Your task to perform on an android device: Search for good Indian restaurants Image 0: 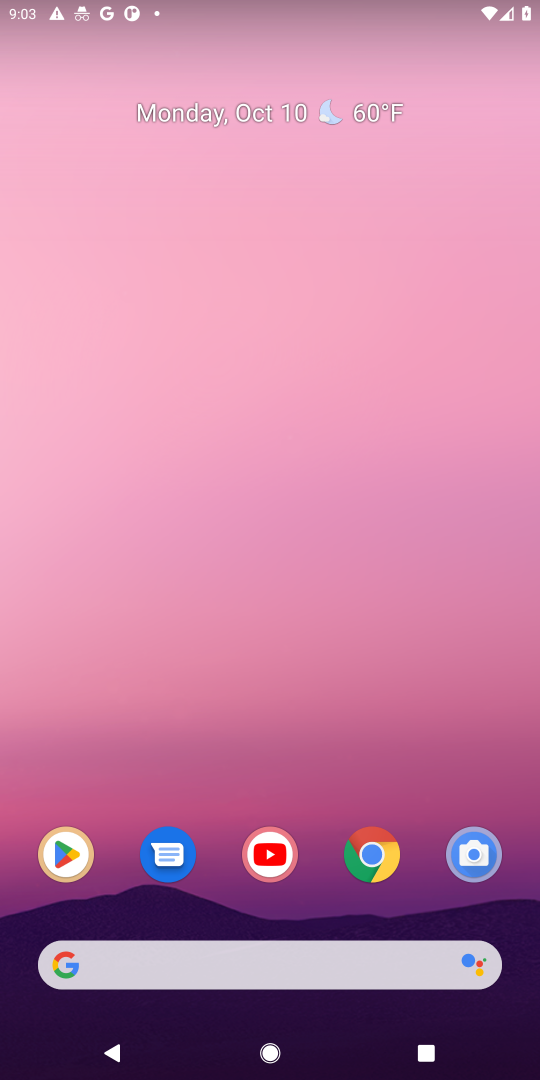
Step 0: click (367, 850)
Your task to perform on an android device: Search for good Indian restaurants Image 1: 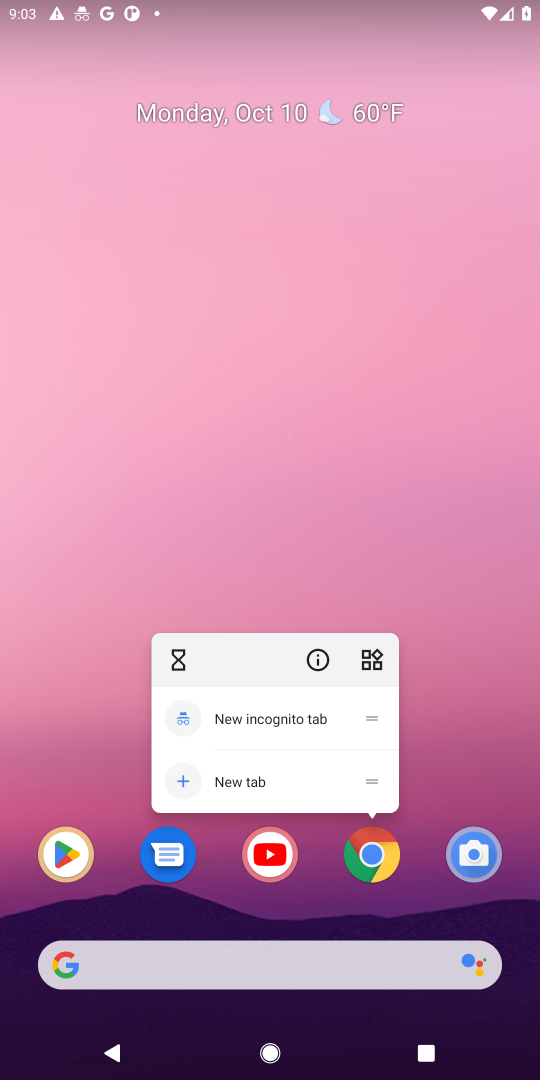
Step 1: click (378, 868)
Your task to perform on an android device: Search for good Indian restaurants Image 2: 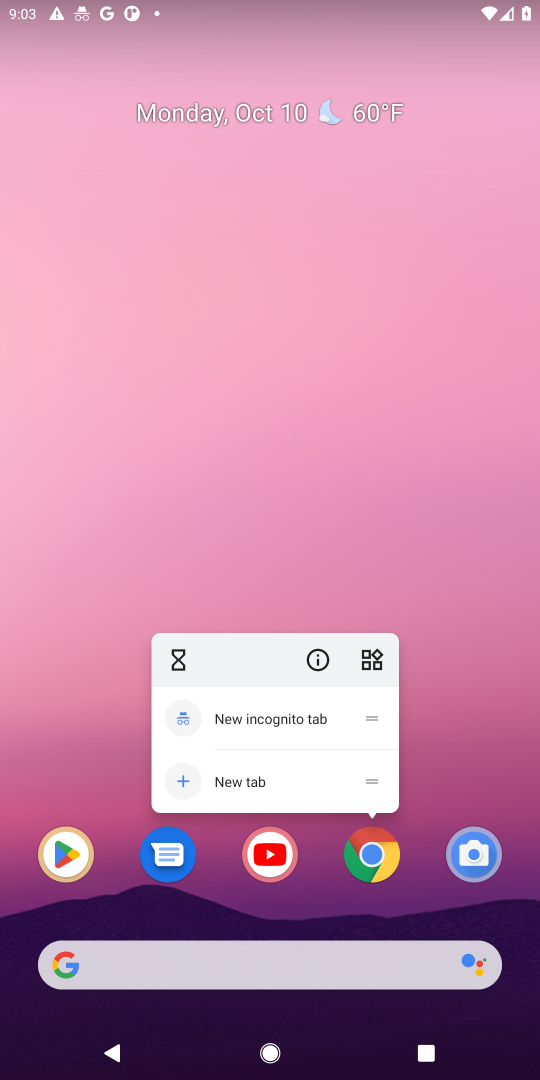
Step 2: click (366, 855)
Your task to perform on an android device: Search for good Indian restaurants Image 3: 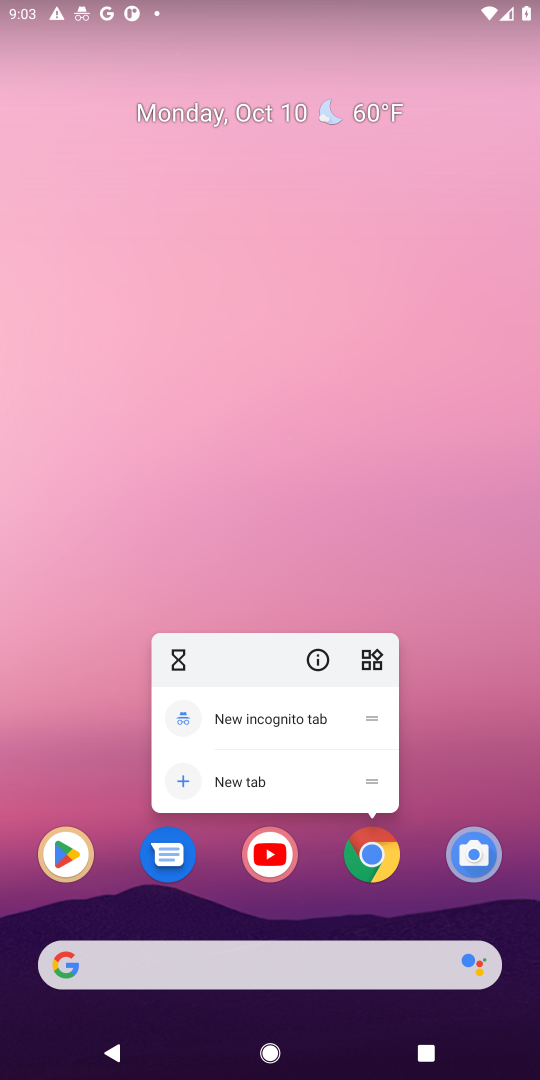
Step 3: click (377, 854)
Your task to perform on an android device: Search for good Indian restaurants Image 4: 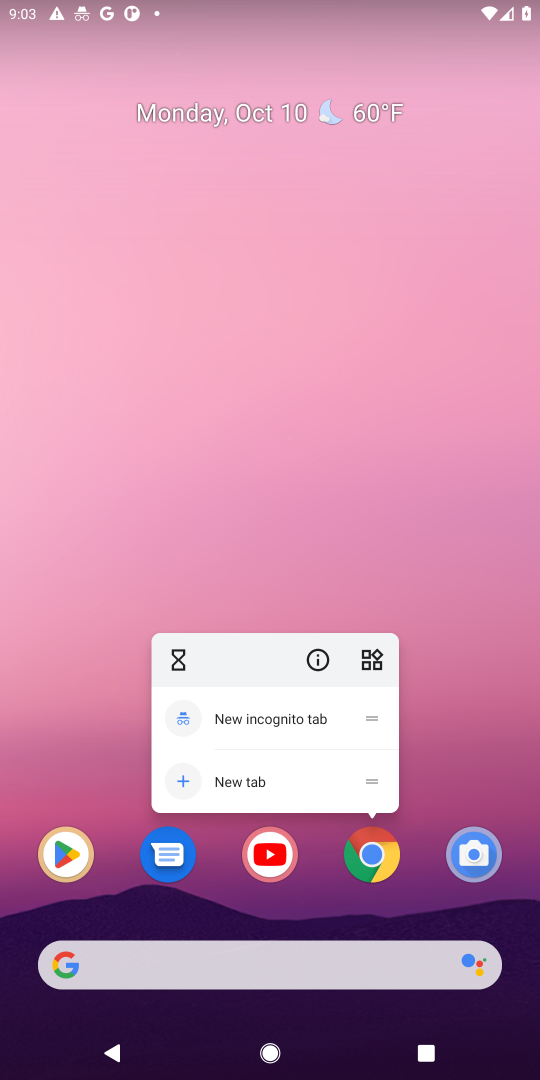
Step 4: click (377, 854)
Your task to perform on an android device: Search for good Indian restaurants Image 5: 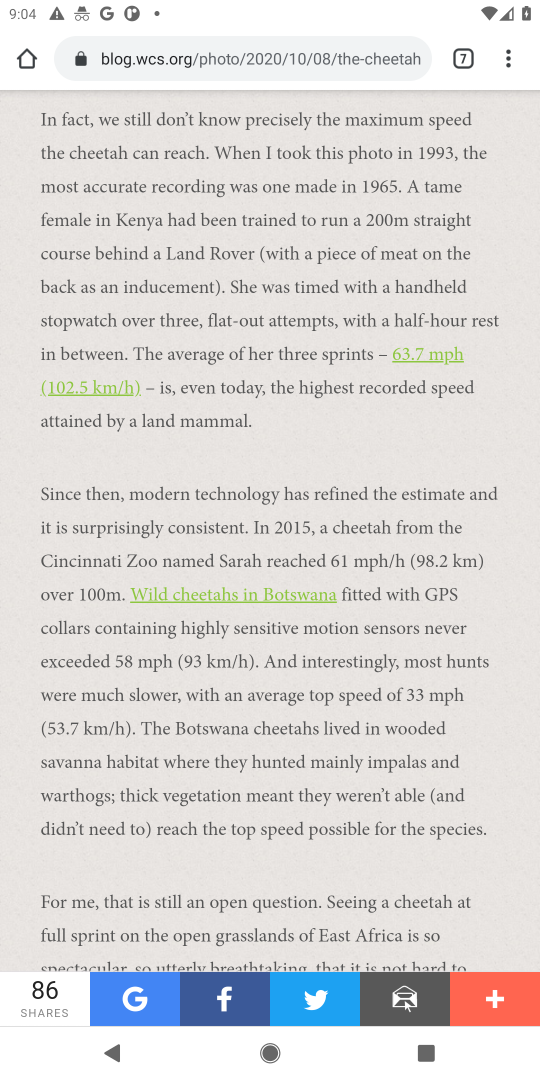
Step 5: click (349, 54)
Your task to perform on an android device: Search for good Indian restaurants Image 6: 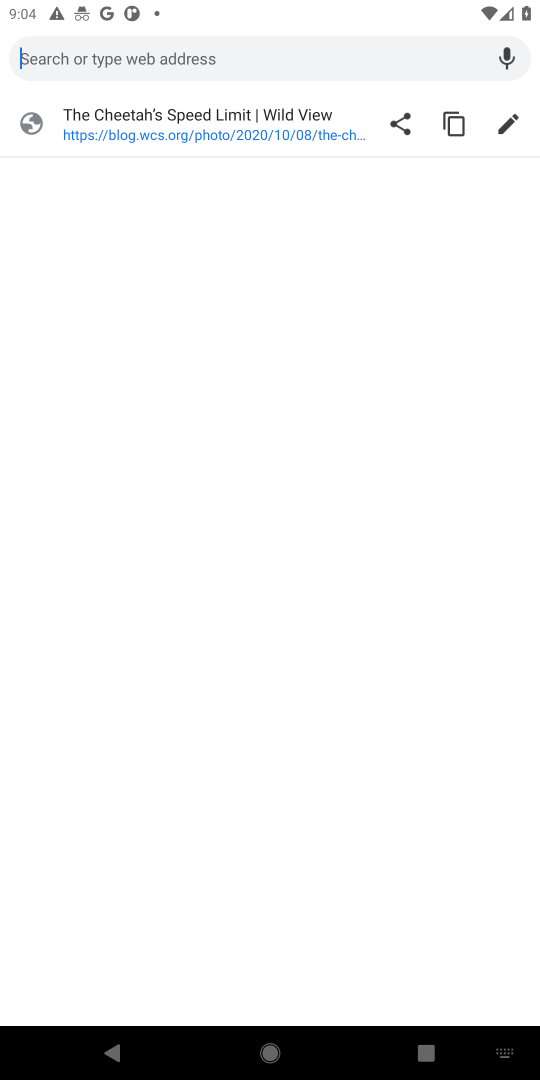
Step 6: type " good Indian restaurants"
Your task to perform on an android device: Search for good Indian restaurants Image 7: 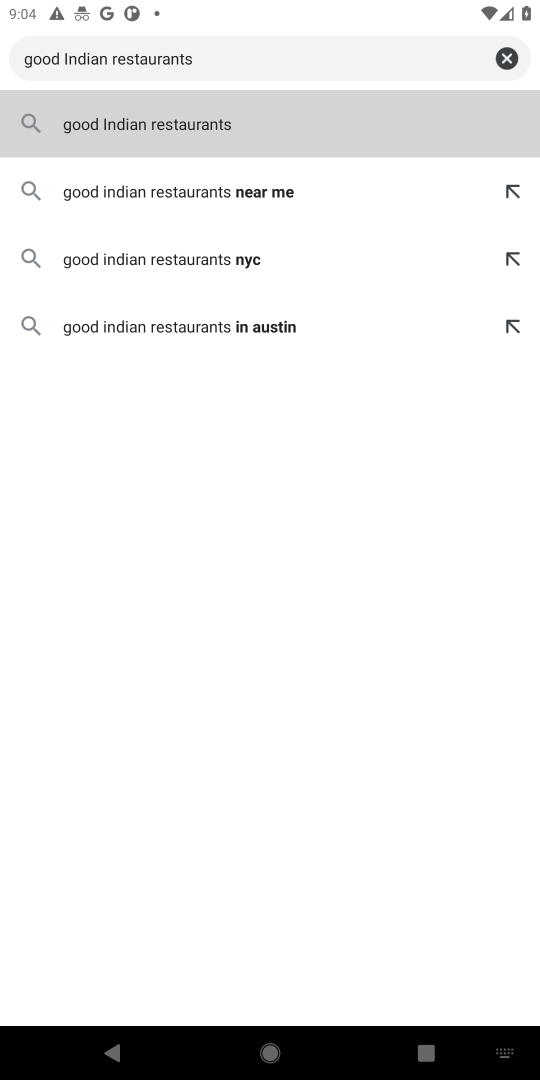
Step 7: click (210, 110)
Your task to perform on an android device: Search for good Indian restaurants Image 8: 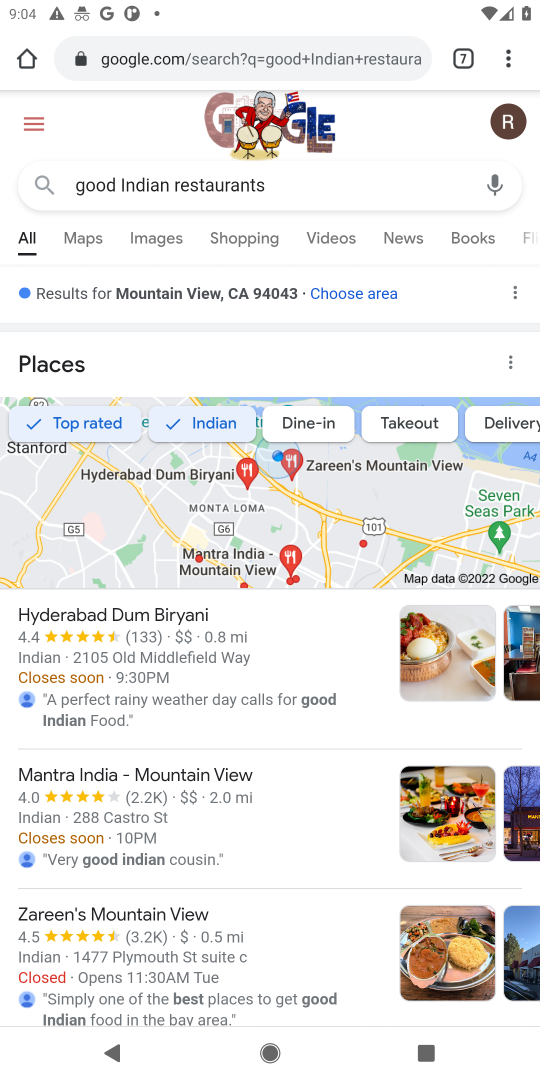
Step 8: drag from (166, 786) to (361, 371)
Your task to perform on an android device: Search for good Indian restaurants Image 9: 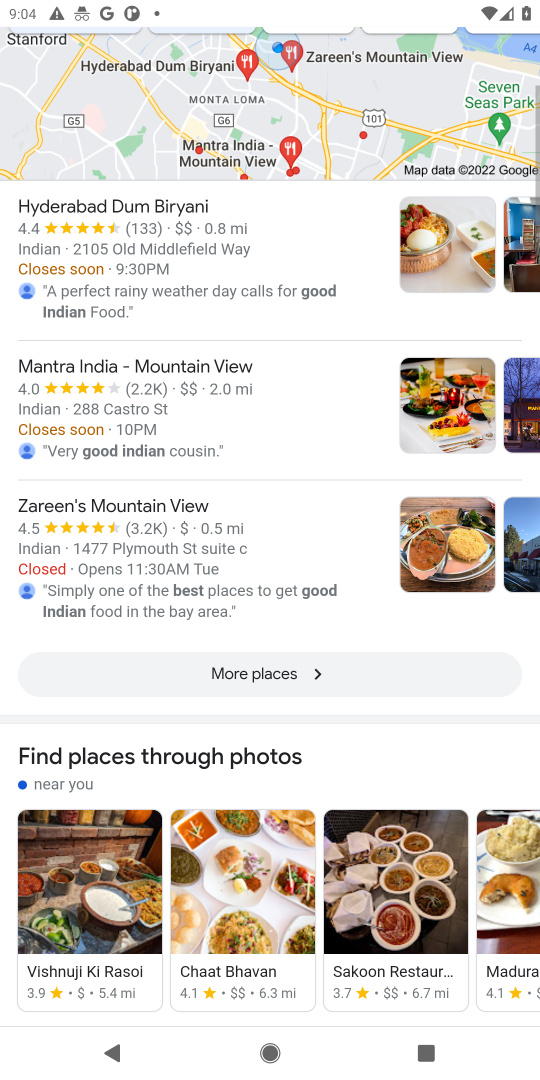
Step 9: click (262, 687)
Your task to perform on an android device: Search for good Indian restaurants Image 10: 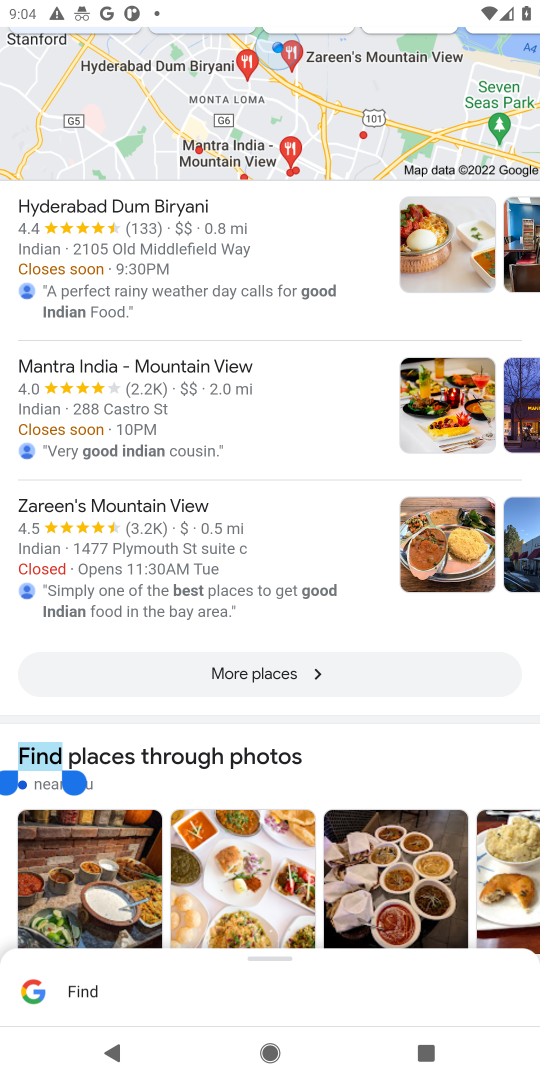
Step 10: click (266, 670)
Your task to perform on an android device: Search for good Indian restaurants Image 11: 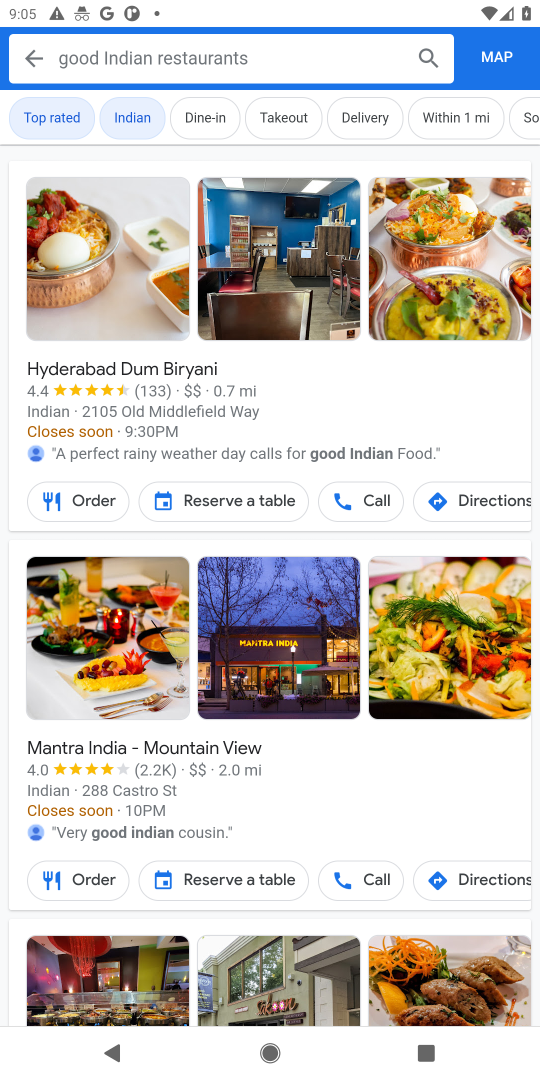
Step 11: task complete